Your task to perform on an android device: turn off airplane mode Image 0: 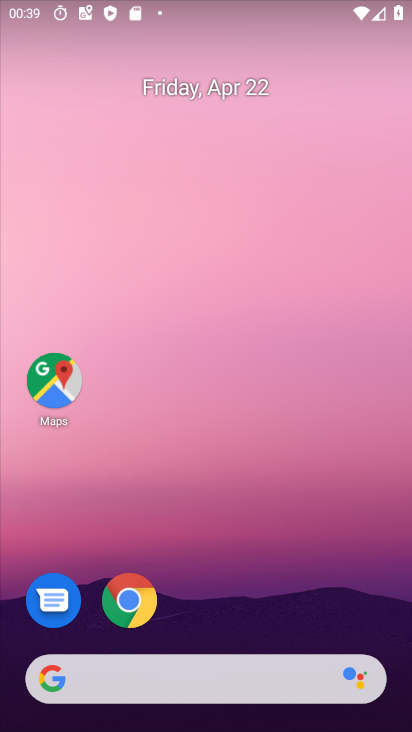
Step 0: drag from (208, 613) to (221, 68)
Your task to perform on an android device: turn off airplane mode Image 1: 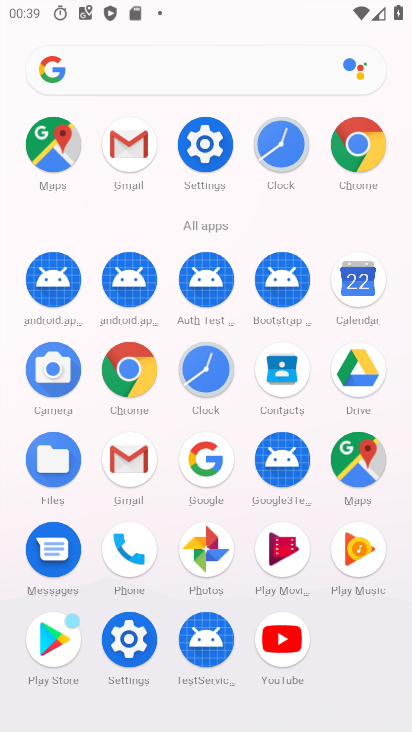
Step 1: click (208, 151)
Your task to perform on an android device: turn off airplane mode Image 2: 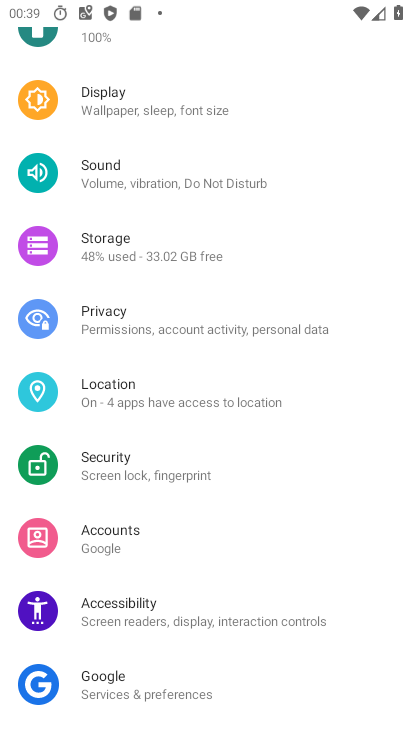
Step 2: drag from (210, 162) to (263, 650)
Your task to perform on an android device: turn off airplane mode Image 3: 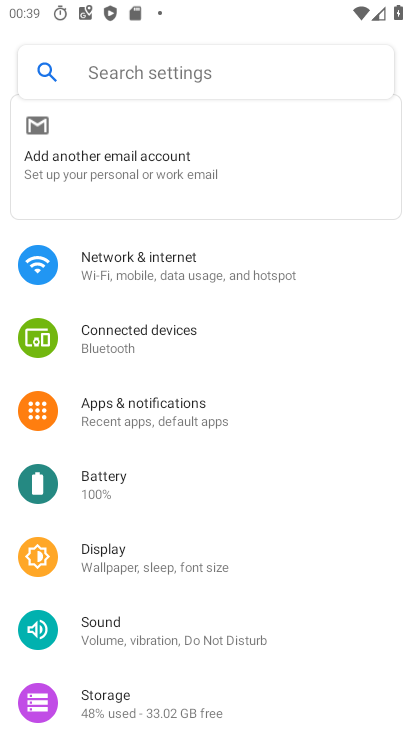
Step 3: click (183, 278)
Your task to perform on an android device: turn off airplane mode Image 4: 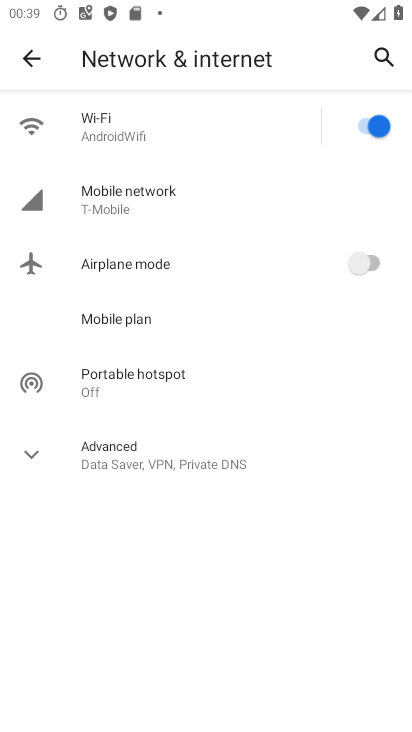
Step 4: task complete